Your task to perform on an android device: turn off sleep mode Image 0: 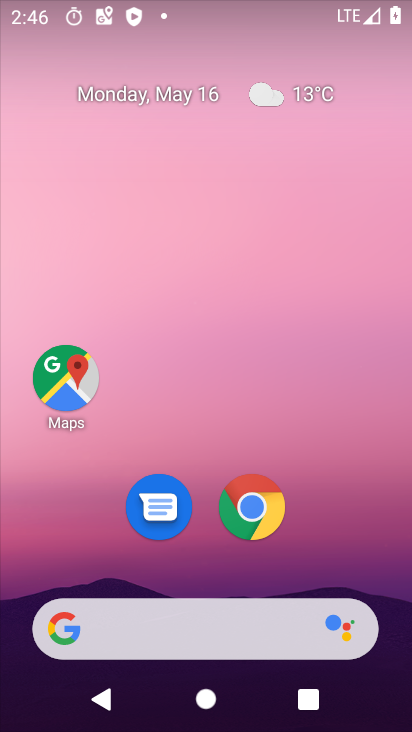
Step 0: drag from (389, 567) to (377, 145)
Your task to perform on an android device: turn off sleep mode Image 1: 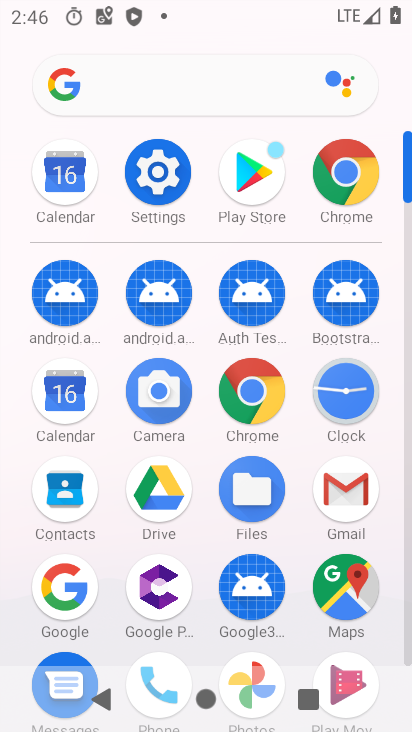
Step 1: click (170, 176)
Your task to perform on an android device: turn off sleep mode Image 2: 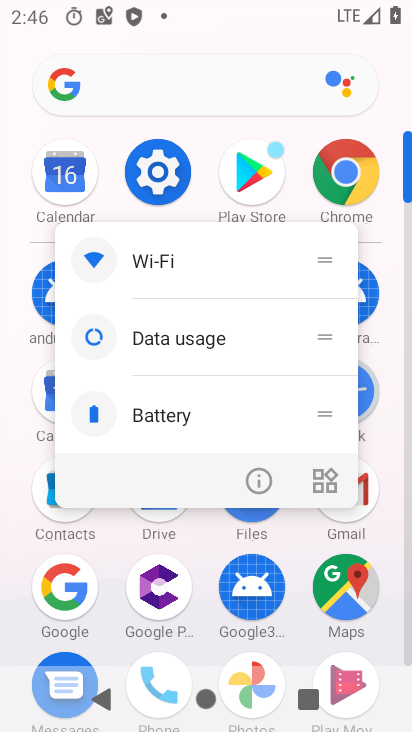
Step 2: click (170, 176)
Your task to perform on an android device: turn off sleep mode Image 3: 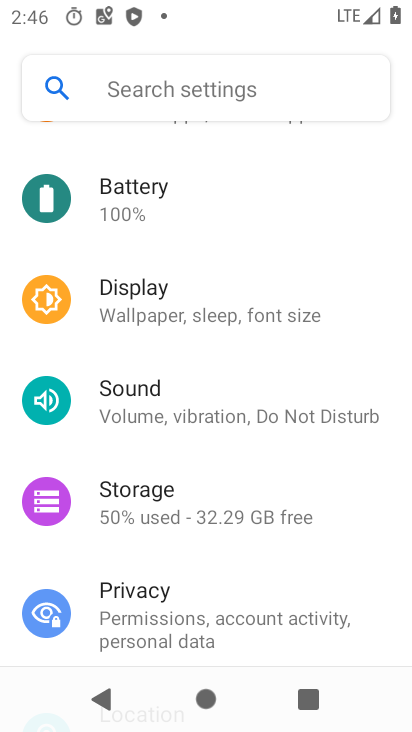
Step 3: drag from (371, 575) to (374, 416)
Your task to perform on an android device: turn off sleep mode Image 4: 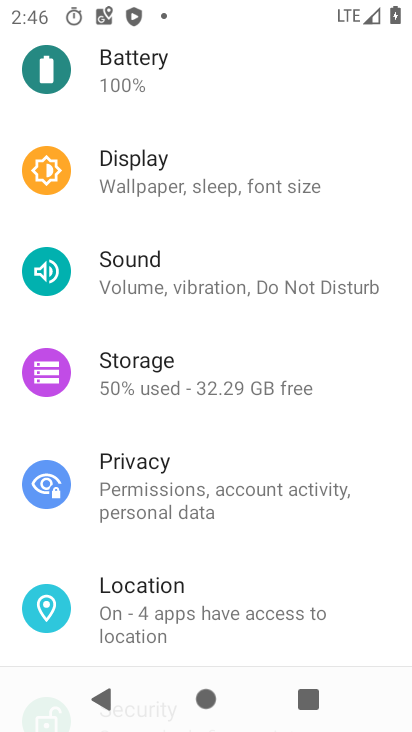
Step 4: drag from (376, 628) to (361, 430)
Your task to perform on an android device: turn off sleep mode Image 5: 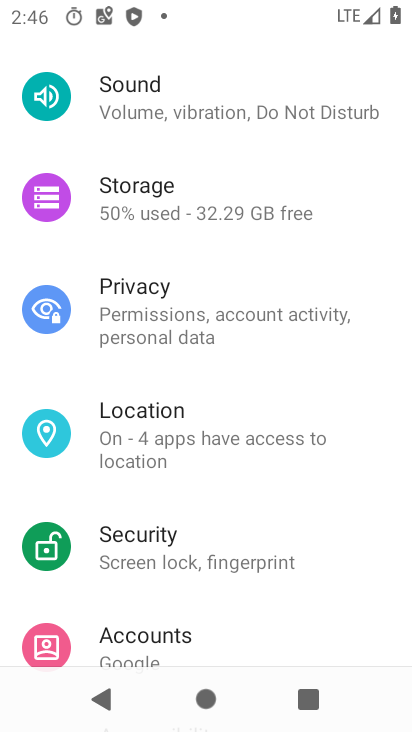
Step 5: drag from (352, 611) to (384, 447)
Your task to perform on an android device: turn off sleep mode Image 6: 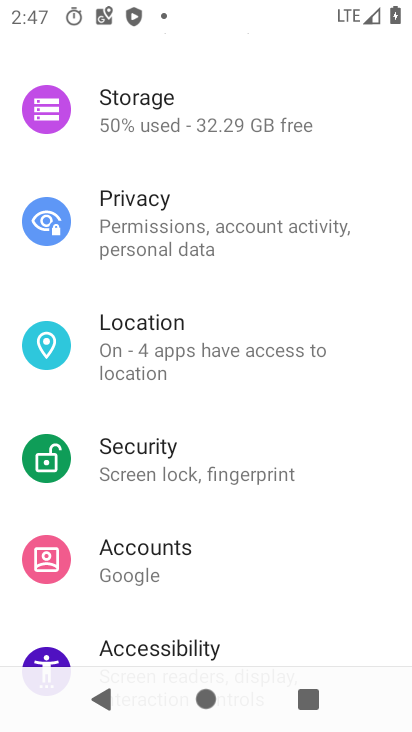
Step 6: drag from (340, 603) to (341, 446)
Your task to perform on an android device: turn off sleep mode Image 7: 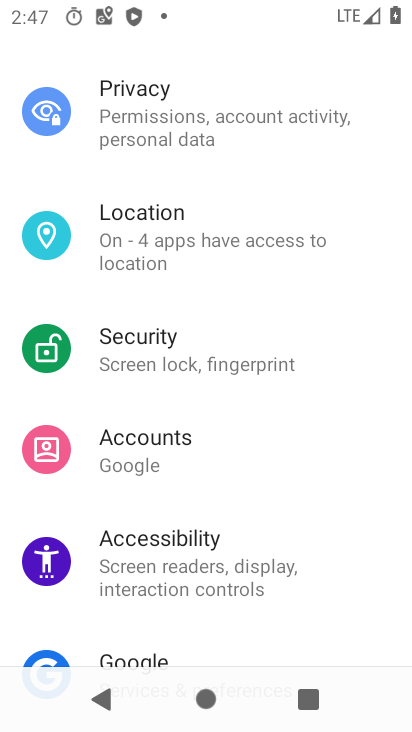
Step 7: drag from (330, 613) to (326, 406)
Your task to perform on an android device: turn off sleep mode Image 8: 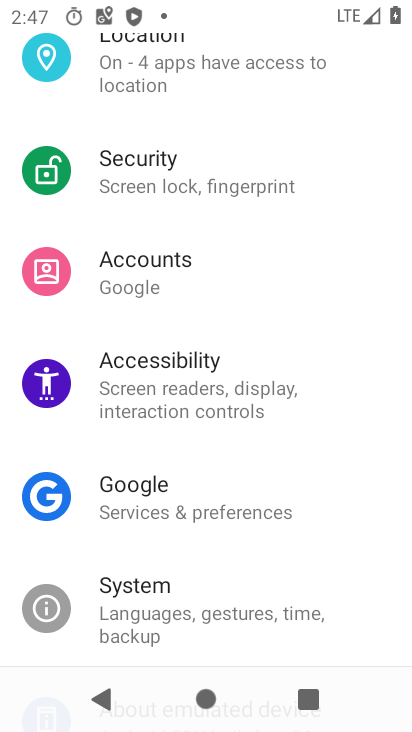
Step 8: drag from (335, 638) to (342, 430)
Your task to perform on an android device: turn off sleep mode Image 9: 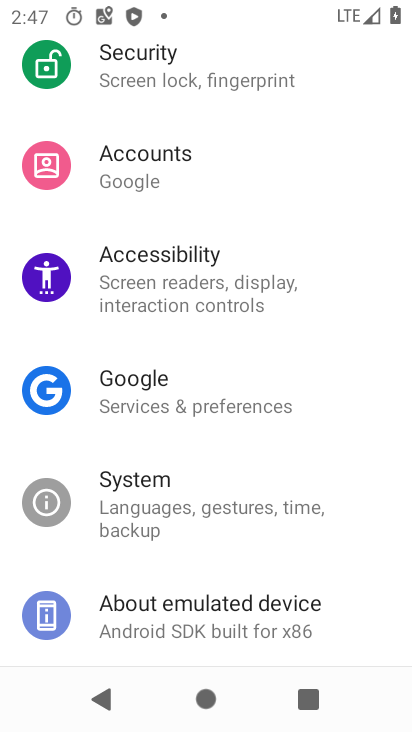
Step 9: drag from (344, 285) to (338, 436)
Your task to perform on an android device: turn off sleep mode Image 10: 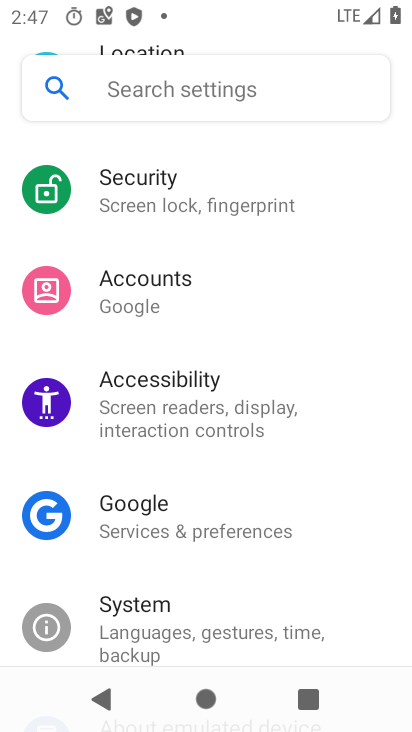
Step 10: drag from (336, 257) to (340, 410)
Your task to perform on an android device: turn off sleep mode Image 11: 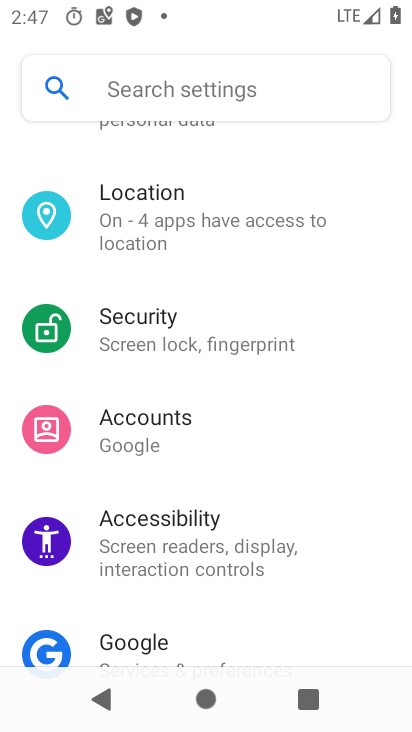
Step 11: drag from (340, 258) to (341, 394)
Your task to perform on an android device: turn off sleep mode Image 12: 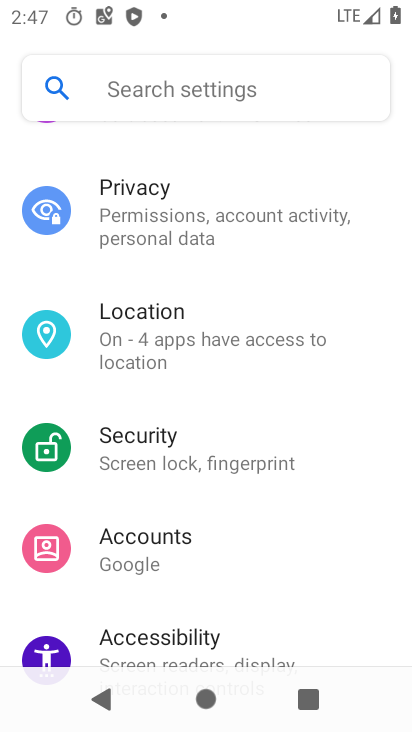
Step 12: drag from (352, 261) to (351, 386)
Your task to perform on an android device: turn off sleep mode Image 13: 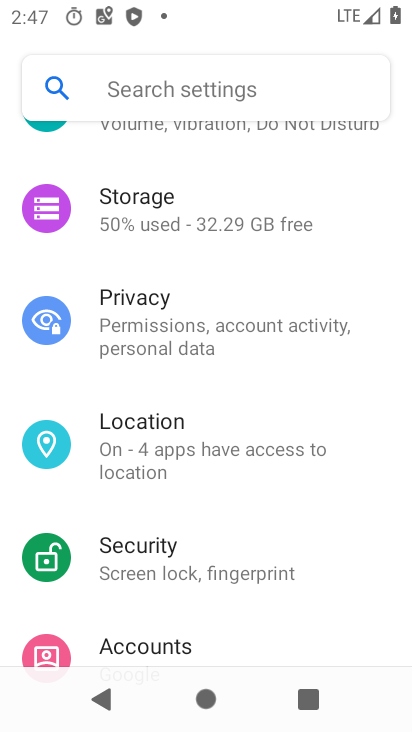
Step 13: drag from (363, 232) to (352, 412)
Your task to perform on an android device: turn off sleep mode Image 14: 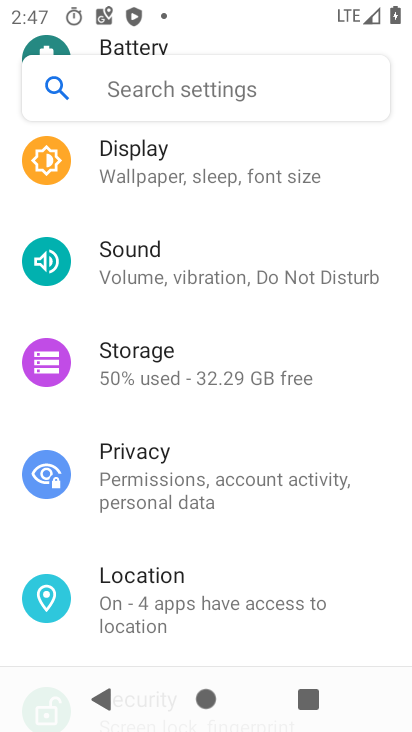
Step 14: drag from (348, 203) to (349, 443)
Your task to perform on an android device: turn off sleep mode Image 15: 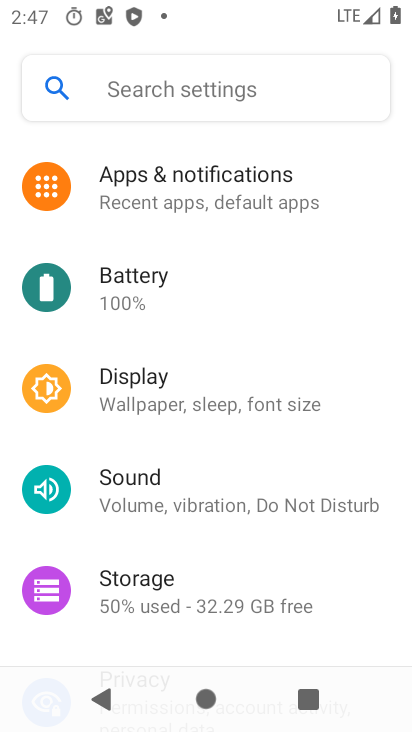
Step 15: click (258, 409)
Your task to perform on an android device: turn off sleep mode Image 16: 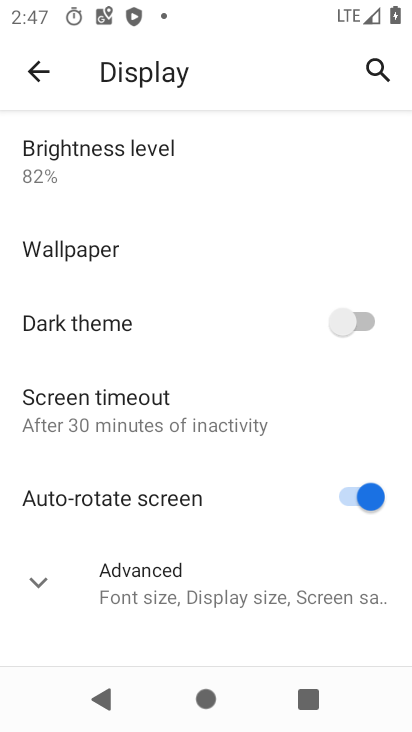
Step 16: click (212, 589)
Your task to perform on an android device: turn off sleep mode Image 17: 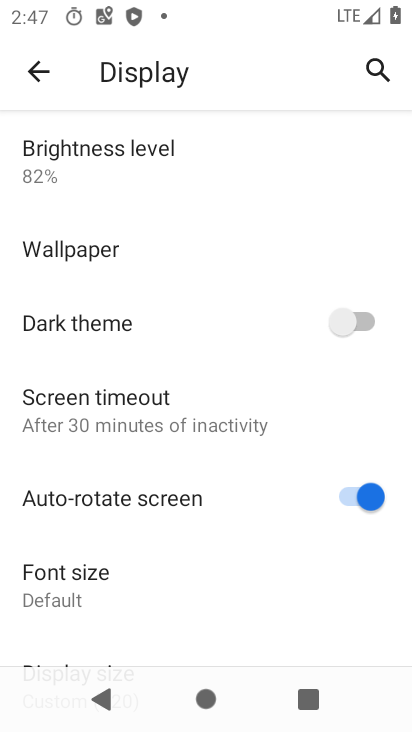
Step 17: task complete